Your task to perform on an android device: Open Google Maps and go to "Timeline" Image 0: 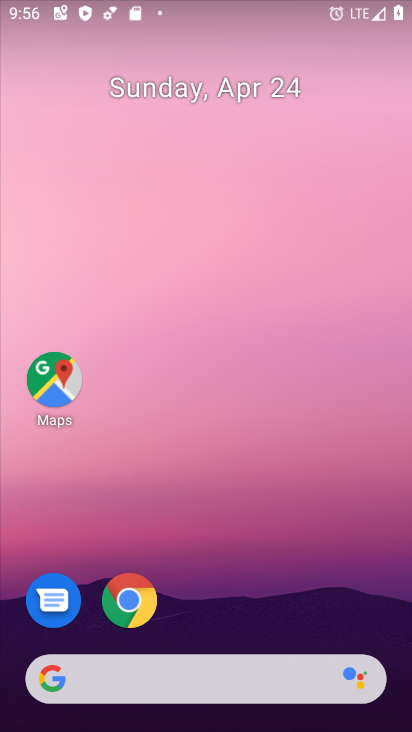
Step 0: drag from (212, 631) to (354, 4)
Your task to perform on an android device: Open Google Maps and go to "Timeline" Image 1: 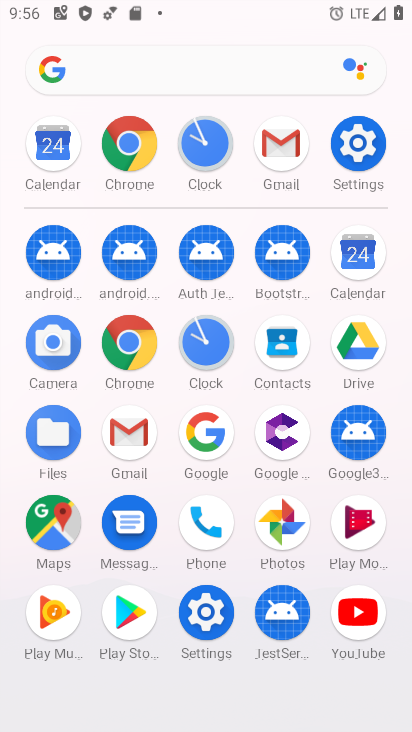
Step 1: click (36, 532)
Your task to perform on an android device: Open Google Maps and go to "Timeline" Image 2: 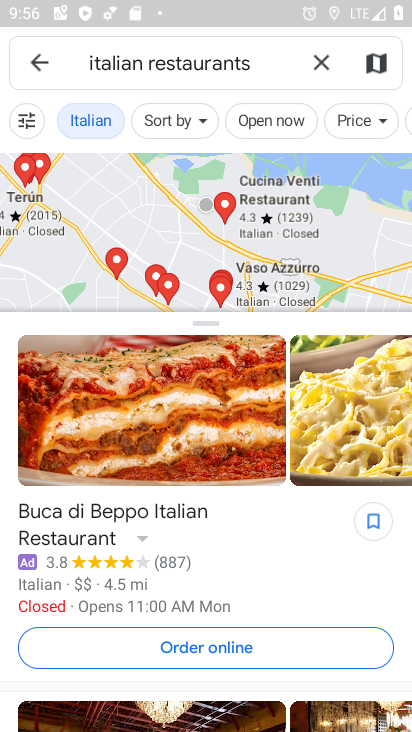
Step 2: click (43, 66)
Your task to perform on an android device: Open Google Maps and go to "Timeline" Image 3: 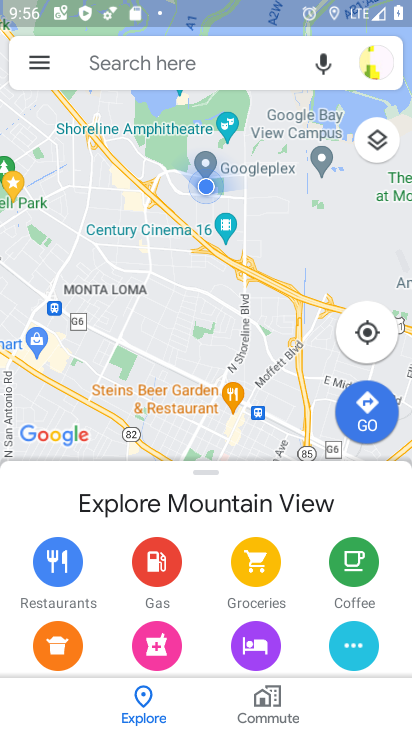
Step 3: click (37, 59)
Your task to perform on an android device: Open Google Maps and go to "Timeline" Image 4: 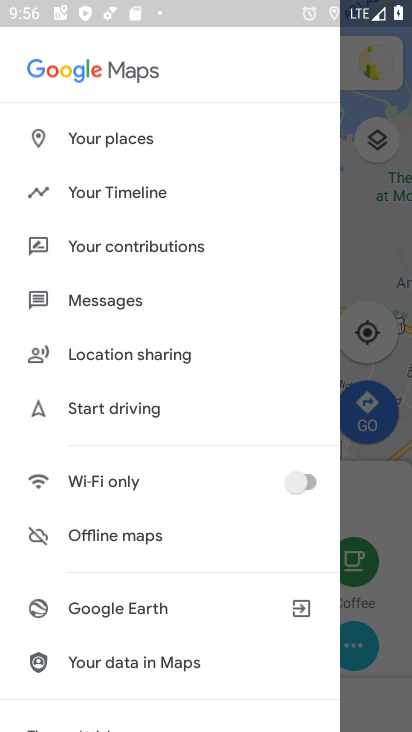
Step 4: click (119, 202)
Your task to perform on an android device: Open Google Maps and go to "Timeline" Image 5: 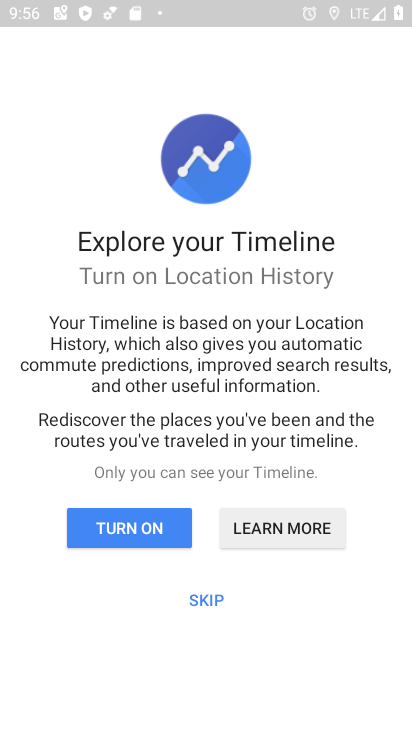
Step 5: click (212, 598)
Your task to perform on an android device: Open Google Maps and go to "Timeline" Image 6: 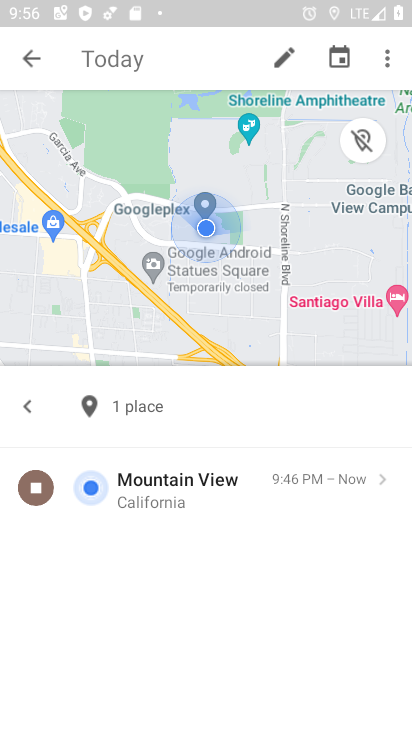
Step 6: task complete